Your task to perform on an android device: What is the recent news? Image 0: 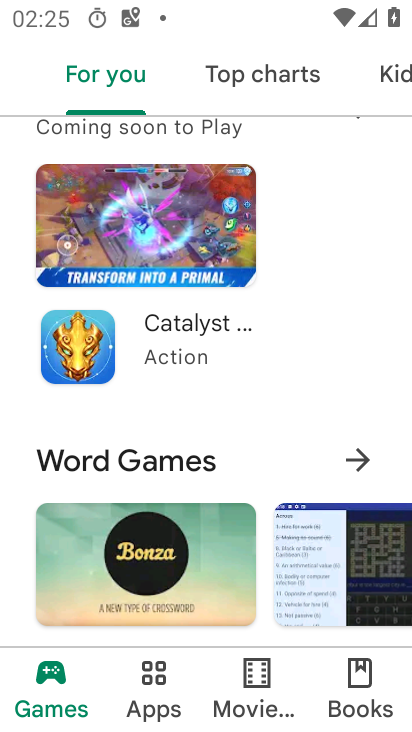
Step 0: press home button
Your task to perform on an android device: What is the recent news? Image 1: 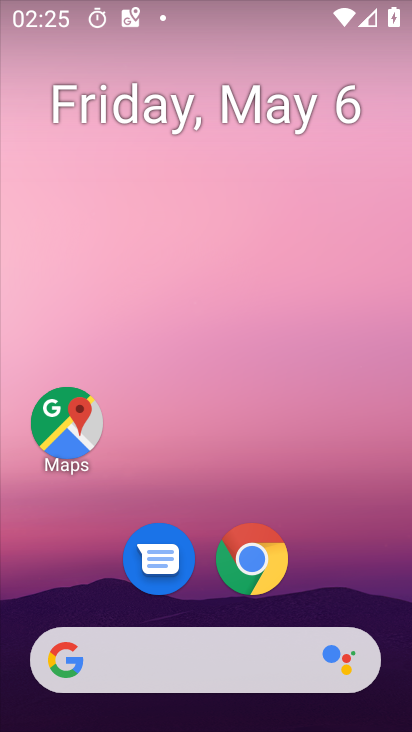
Step 1: drag from (310, 611) to (278, 7)
Your task to perform on an android device: What is the recent news? Image 2: 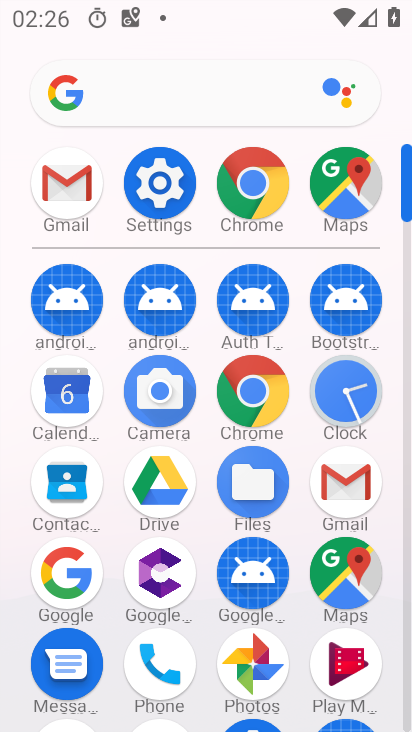
Step 2: click (246, 390)
Your task to perform on an android device: What is the recent news? Image 3: 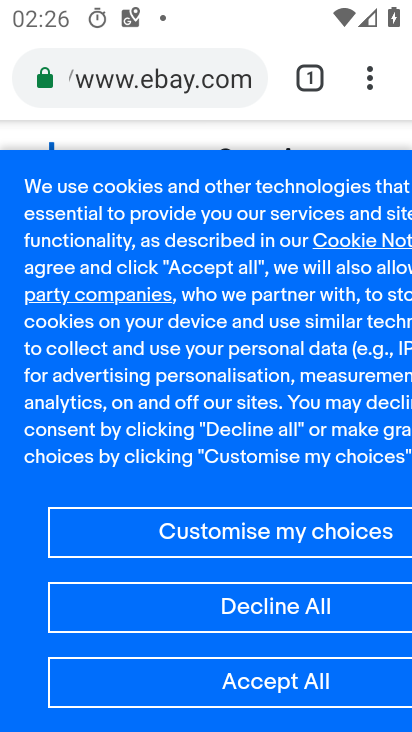
Step 3: click (105, 74)
Your task to perform on an android device: What is the recent news? Image 4: 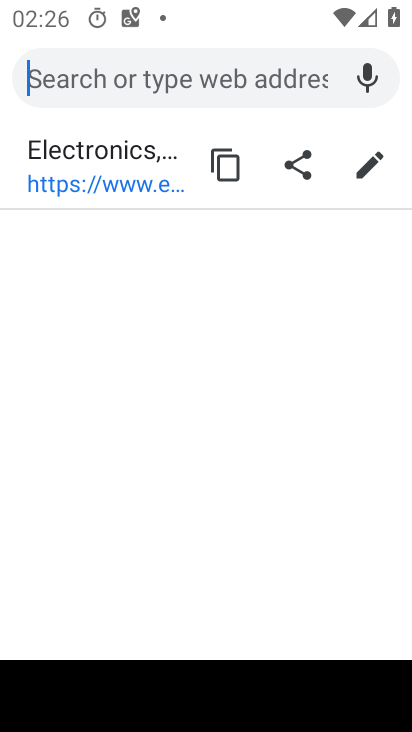
Step 4: type "recent news"
Your task to perform on an android device: What is the recent news? Image 5: 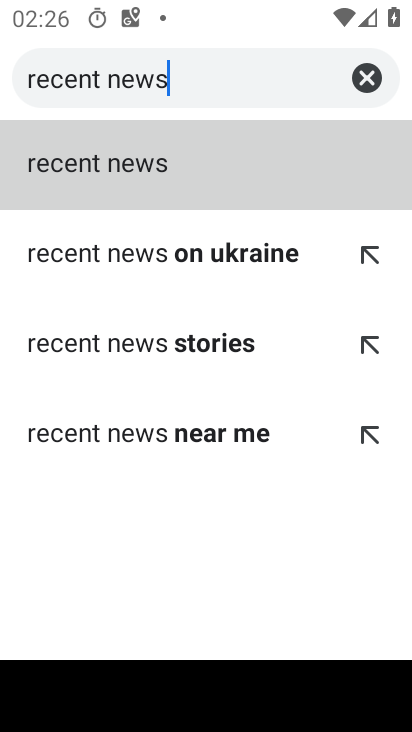
Step 5: click (206, 179)
Your task to perform on an android device: What is the recent news? Image 6: 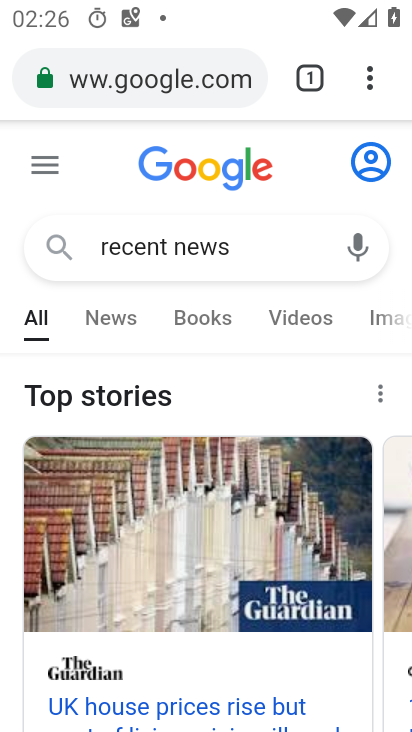
Step 6: task complete